Your task to perform on an android device: turn on translation in the chrome app Image 0: 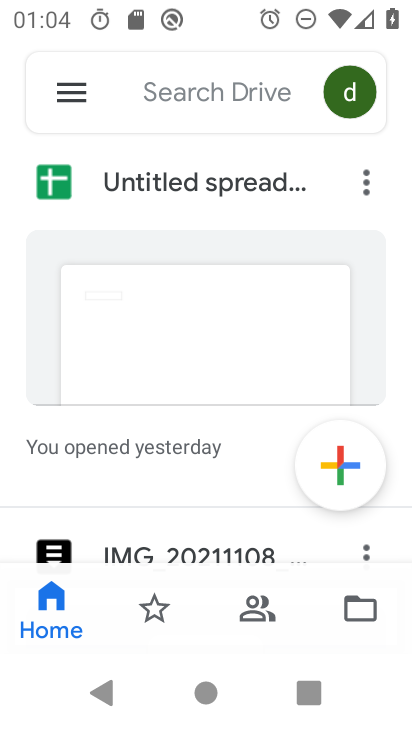
Step 0: press home button
Your task to perform on an android device: turn on translation in the chrome app Image 1: 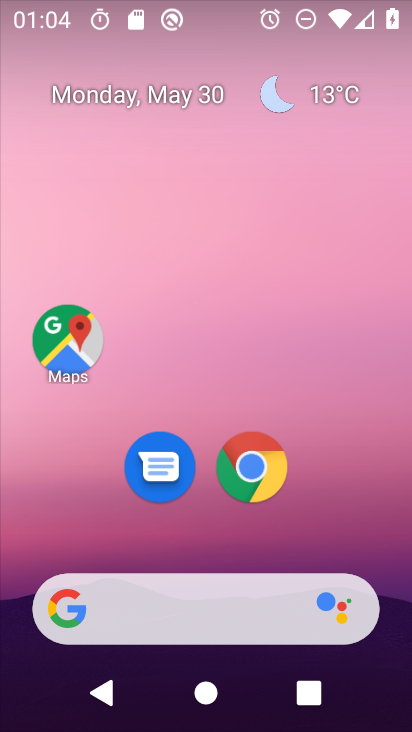
Step 1: click (247, 482)
Your task to perform on an android device: turn on translation in the chrome app Image 2: 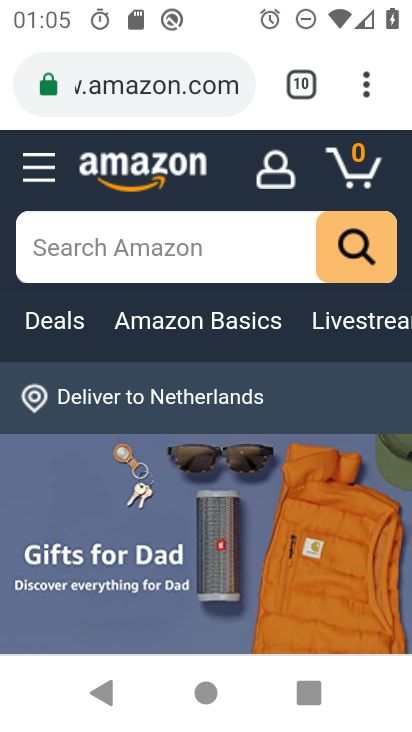
Step 2: drag from (366, 77) to (106, 516)
Your task to perform on an android device: turn on translation in the chrome app Image 3: 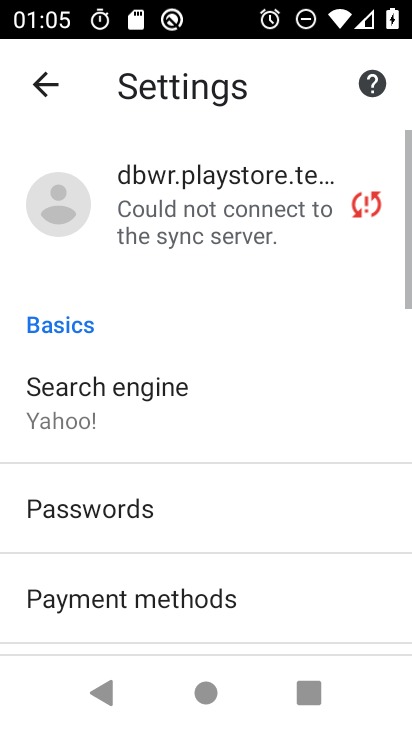
Step 3: drag from (197, 575) to (170, 245)
Your task to perform on an android device: turn on translation in the chrome app Image 4: 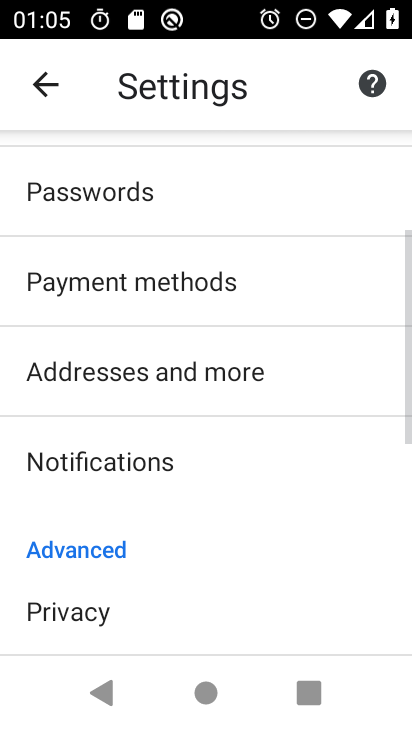
Step 4: drag from (208, 549) to (224, 275)
Your task to perform on an android device: turn on translation in the chrome app Image 5: 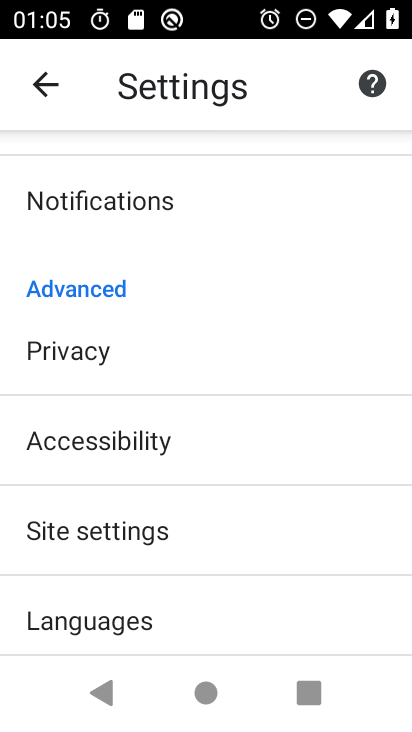
Step 5: click (186, 597)
Your task to perform on an android device: turn on translation in the chrome app Image 6: 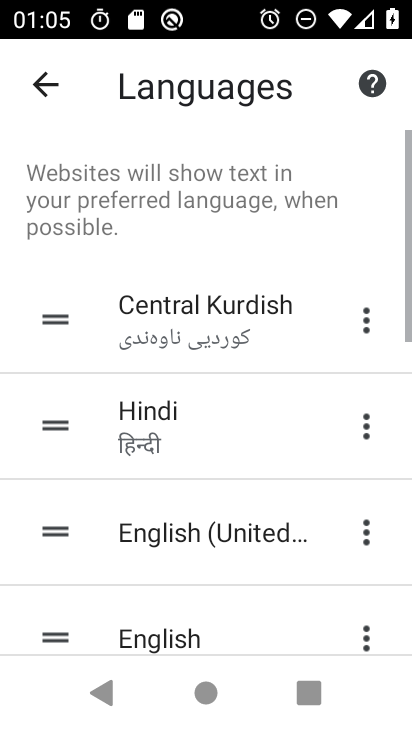
Step 6: drag from (192, 577) to (201, 264)
Your task to perform on an android device: turn on translation in the chrome app Image 7: 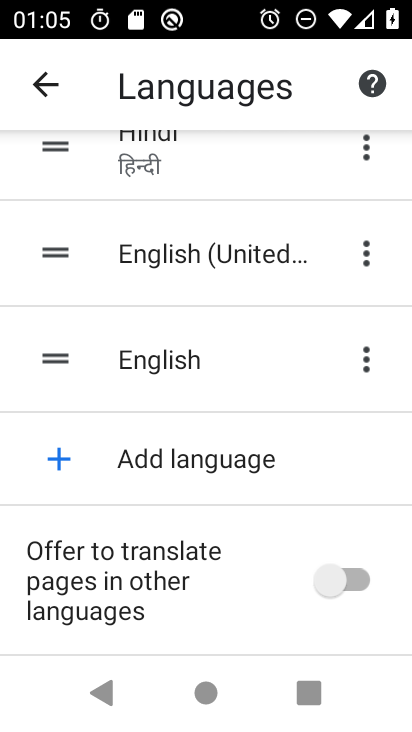
Step 7: click (360, 571)
Your task to perform on an android device: turn on translation in the chrome app Image 8: 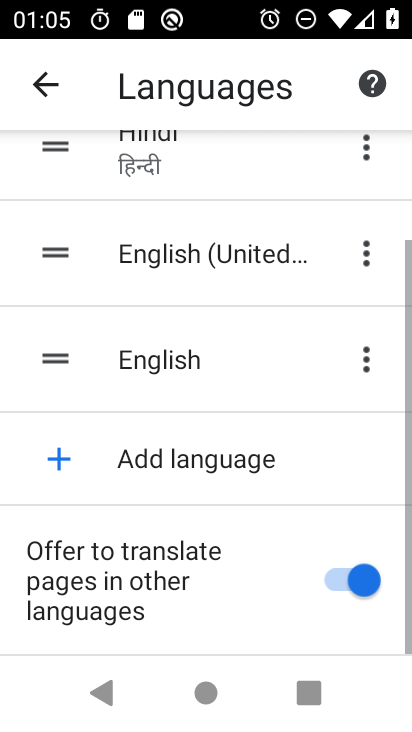
Step 8: task complete